Your task to perform on an android device: Go to wifi settings Image 0: 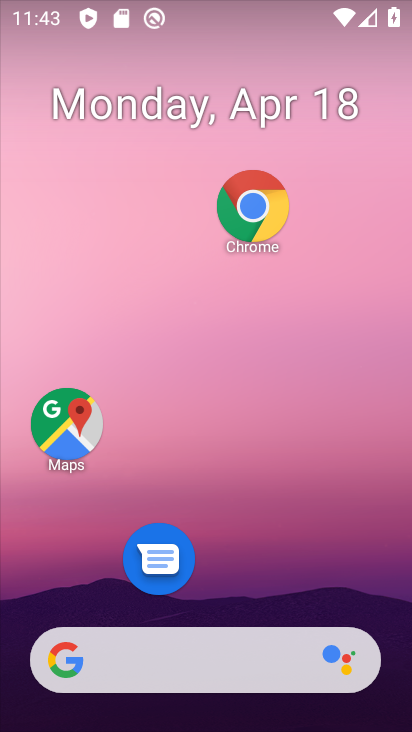
Step 0: drag from (120, 578) to (121, 0)
Your task to perform on an android device: Go to wifi settings Image 1: 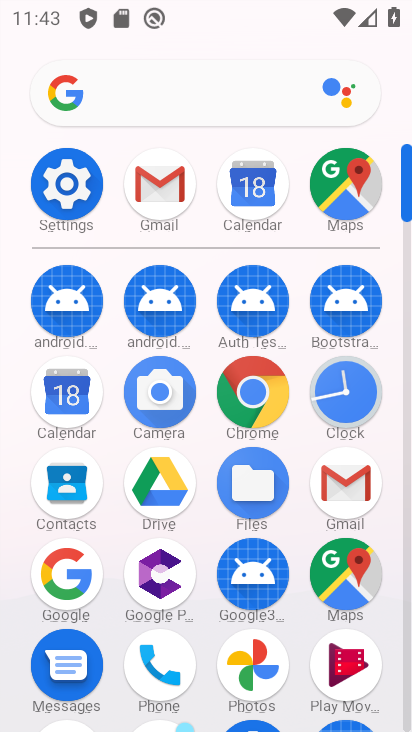
Step 1: click (75, 198)
Your task to perform on an android device: Go to wifi settings Image 2: 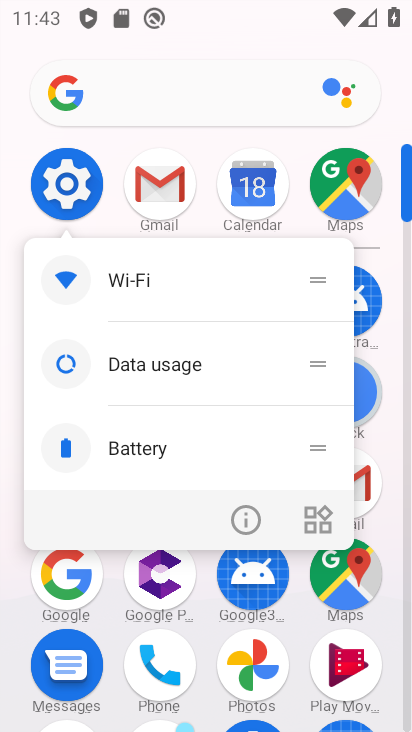
Step 2: click (140, 277)
Your task to perform on an android device: Go to wifi settings Image 3: 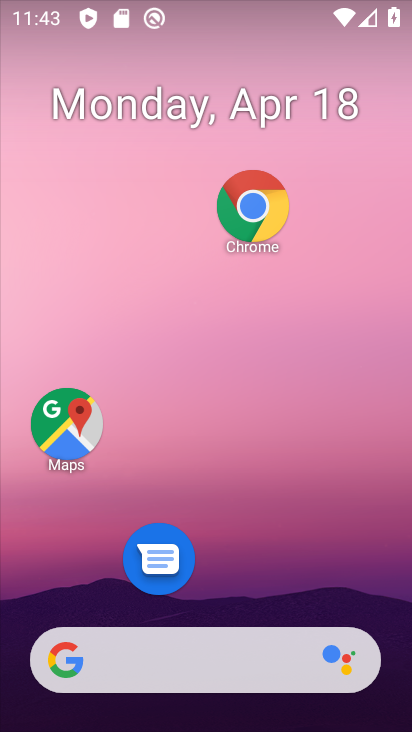
Step 3: drag from (251, 594) to (291, 33)
Your task to perform on an android device: Go to wifi settings Image 4: 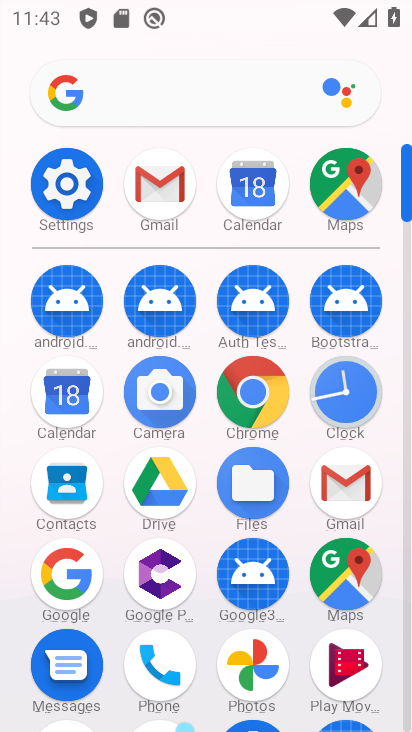
Step 4: drag from (287, 630) to (279, 236)
Your task to perform on an android device: Go to wifi settings Image 5: 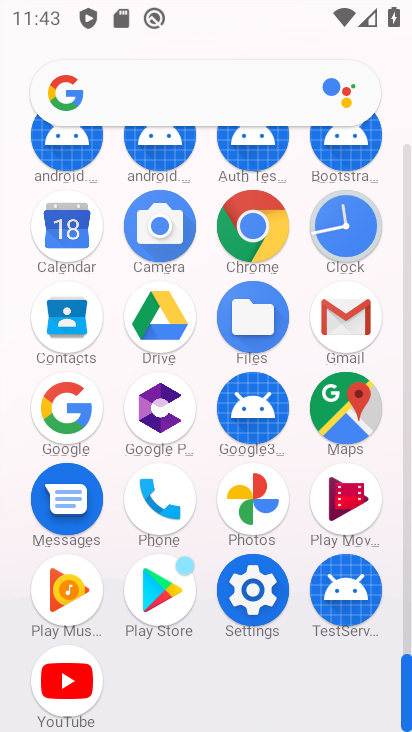
Step 5: click (253, 613)
Your task to perform on an android device: Go to wifi settings Image 6: 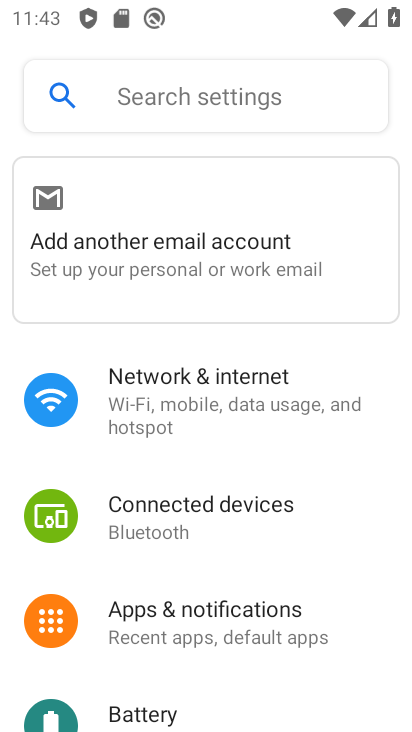
Step 6: click (222, 394)
Your task to perform on an android device: Go to wifi settings Image 7: 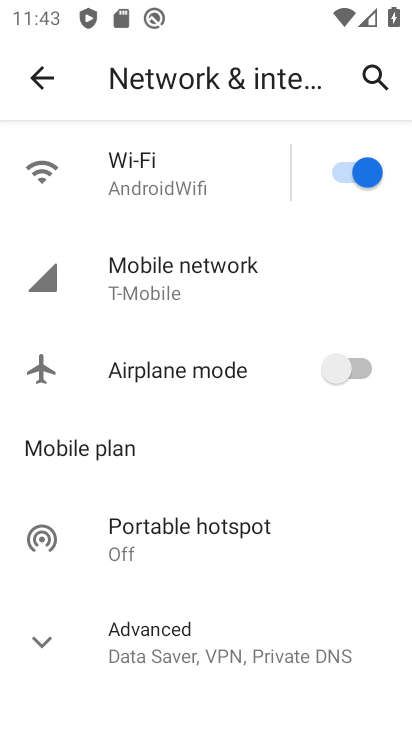
Step 7: click (155, 179)
Your task to perform on an android device: Go to wifi settings Image 8: 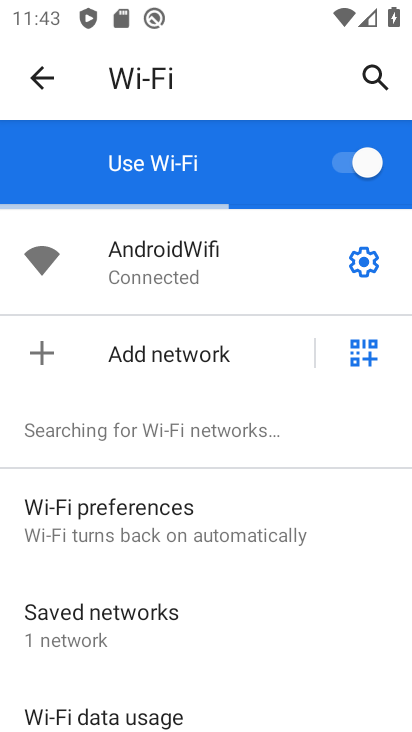
Step 8: task complete